Your task to perform on an android device: open chrome privacy settings Image 0: 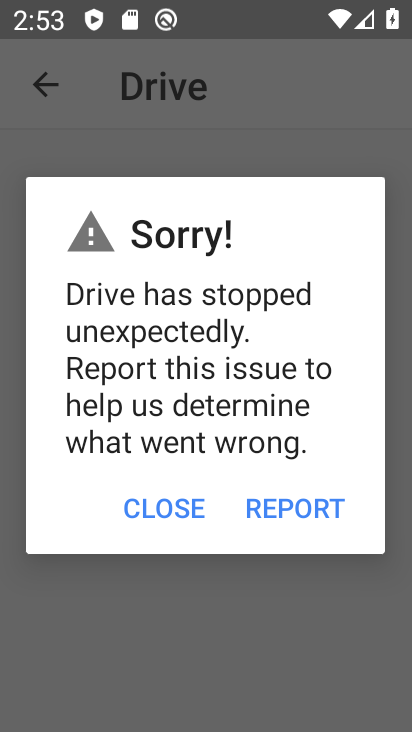
Step 0: press home button
Your task to perform on an android device: open chrome privacy settings Image 1: 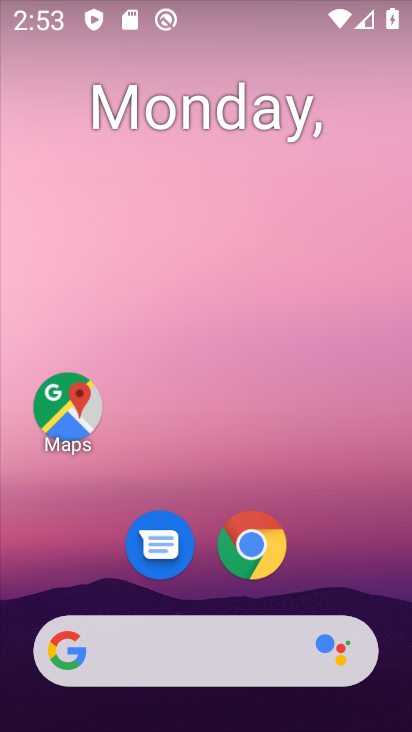
Step 1: click (266, 545)
Your task to perform on an android device: open chrome privacy settings Image 2: 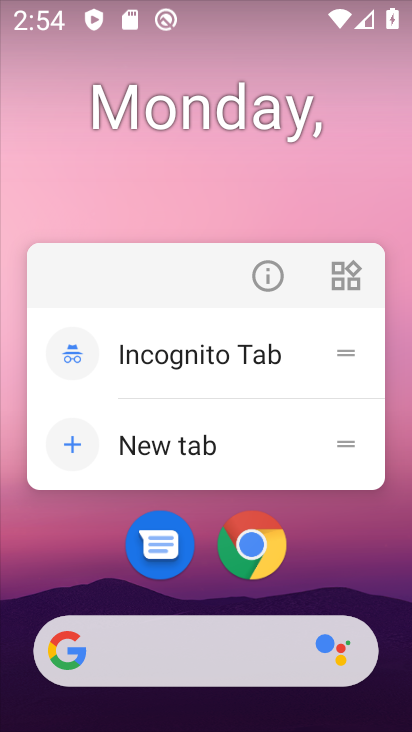
Step 2: click (255, 540)
Your task to perform on an android device: open chrome privacy settings Image 3: 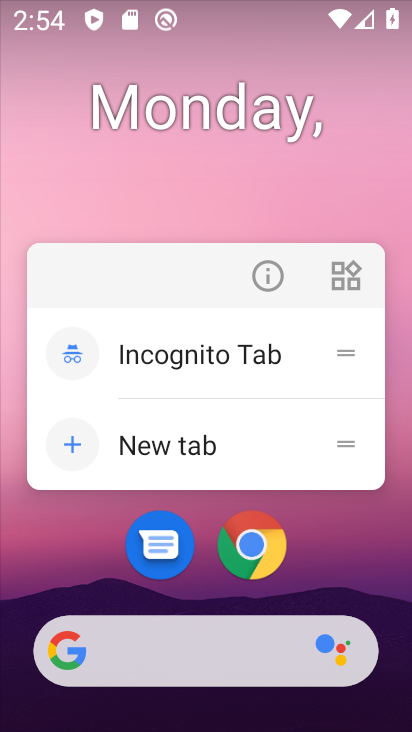
Step 3: click (273, 536)
Your task to perform on an android device: open chrome privacy settings Image 4: 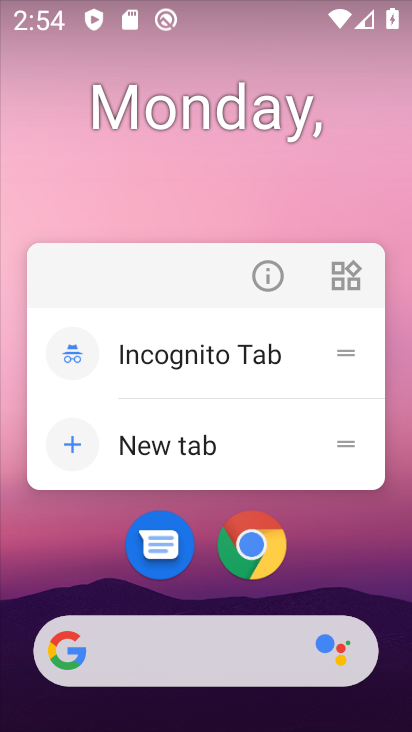
Step 4: click (266, 533)
Your task to perform on an android device: open chrome privacy settings Image 5: 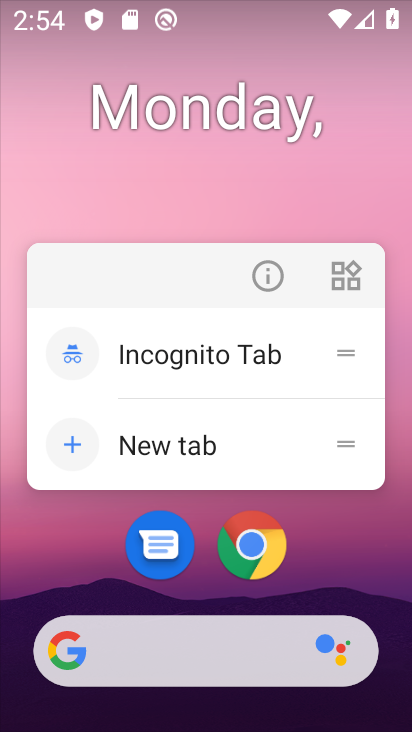
Step 5: click (254, 543)
Your task to perform on an android device: open chrome privacy settings Image 6: 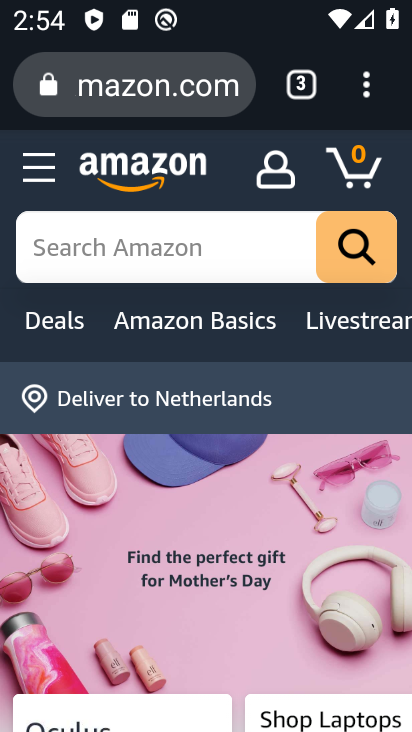
Step 6: drag from (370, 77) to (152, 590)
Your task to perform on an android device: open chrome privacy settings Image 7: 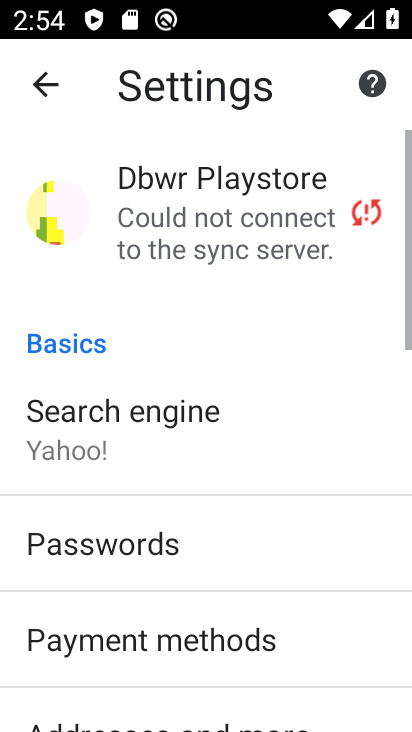
Step 7: drag from (168, 642) to (292, 186)
Your task to perform on an android device: open chrome privacy settings Image 8: 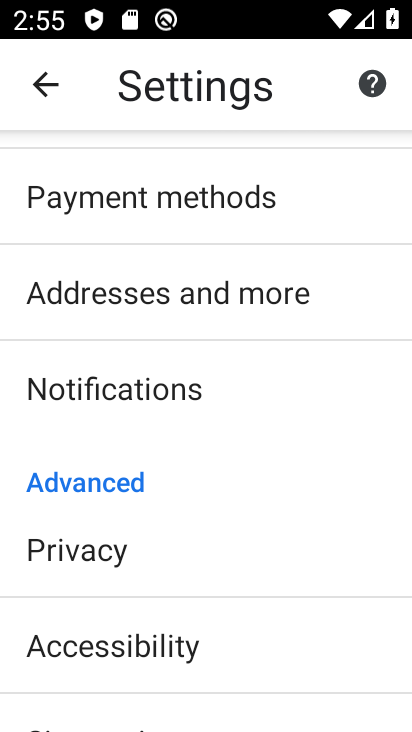
Step 8: click (108, 559)
Your task to perform on an android device: open chrome privacy settings Image 9: 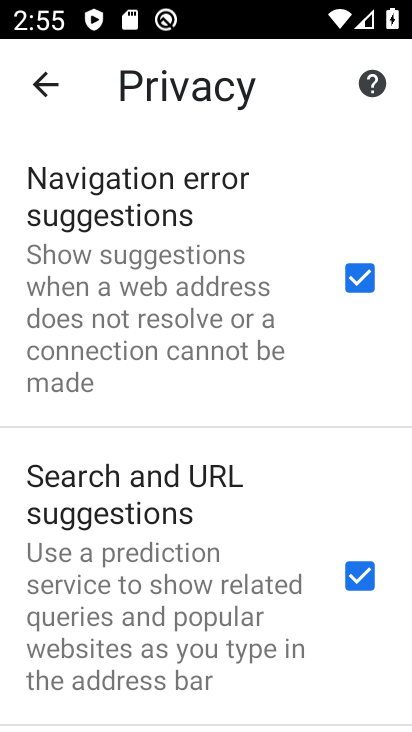
Step 9: task complete